Your task to perform on an android device: Go to Reddit.com Image 0: 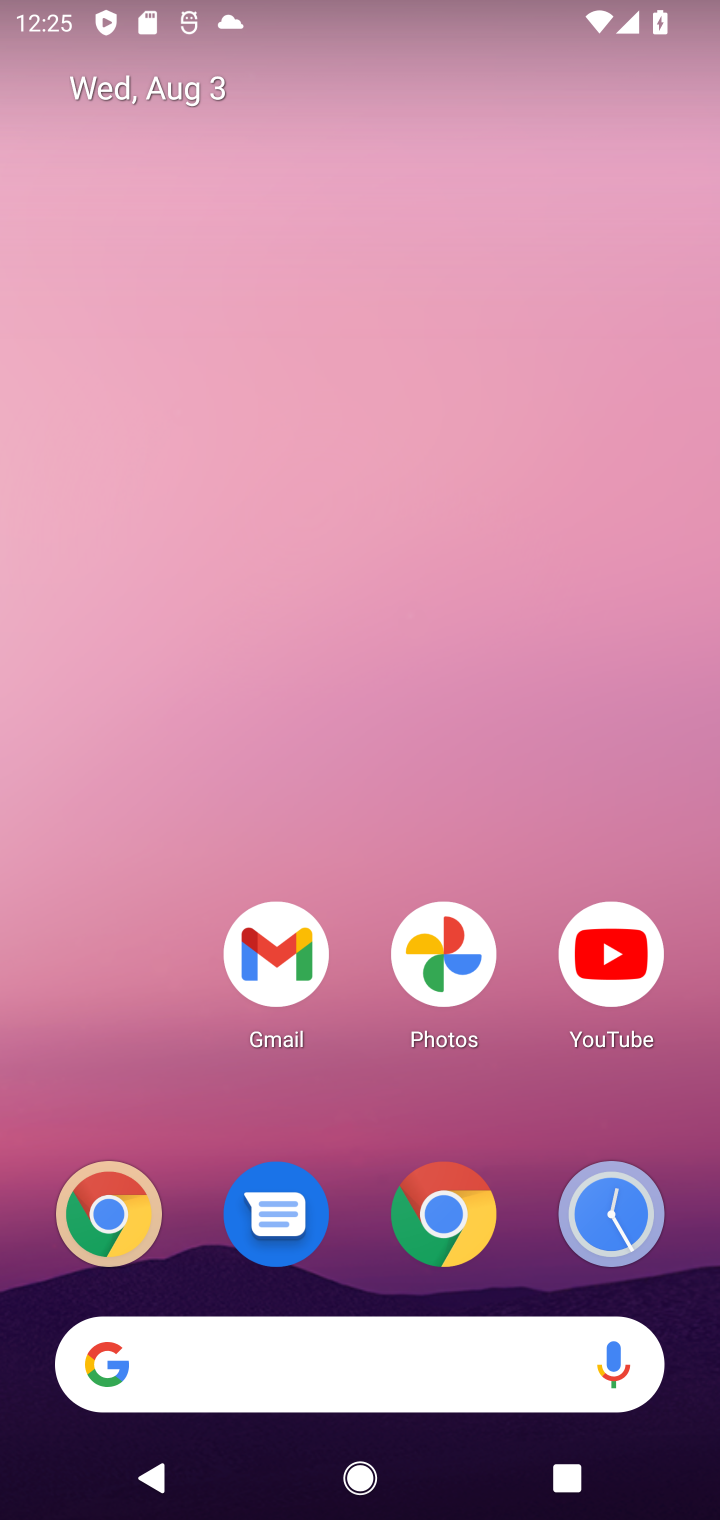
Step 0: click (606, 1222)
Your task to perform on an android device: Go to Reddit.com Image 1: 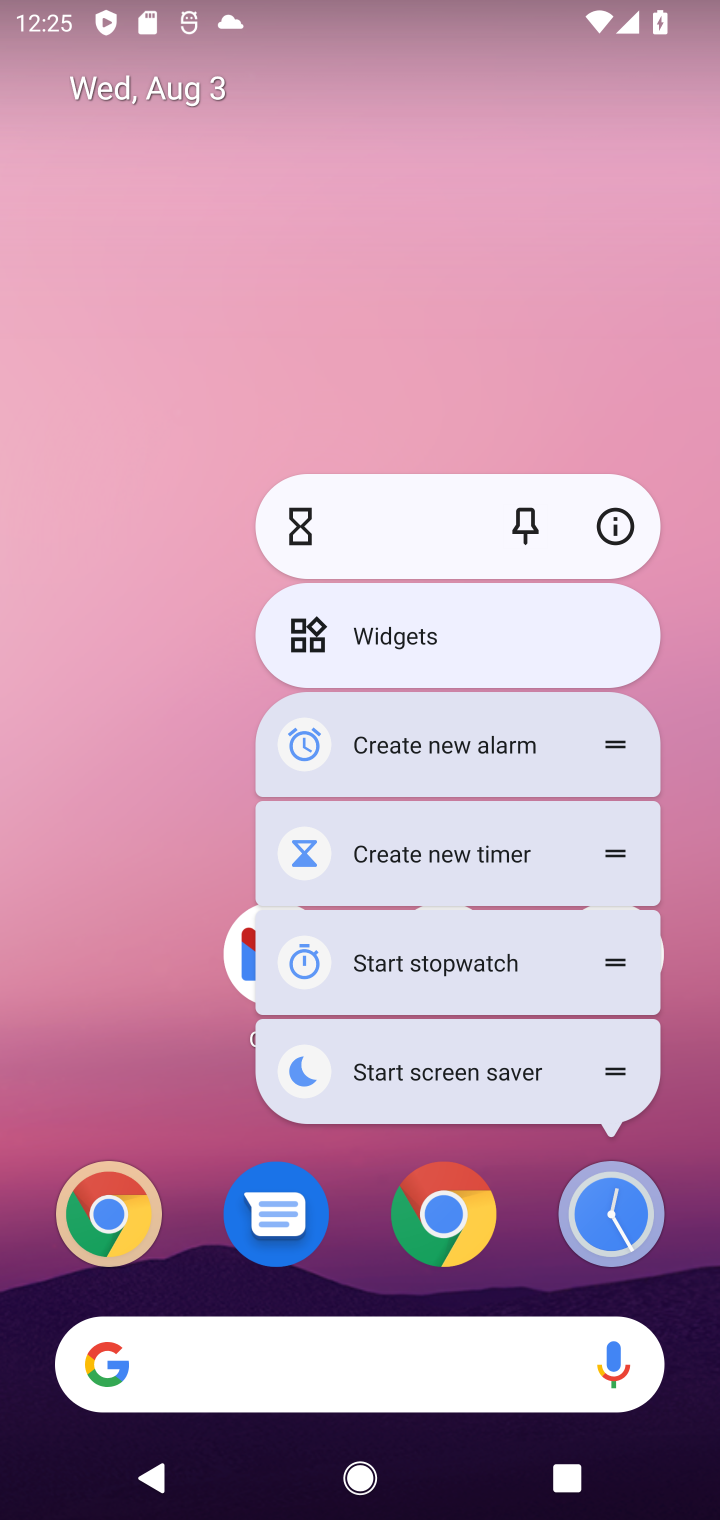
Step 1: click (606, 1222)
Your task to perform on an android device: Go to Reddit.com Image 2: 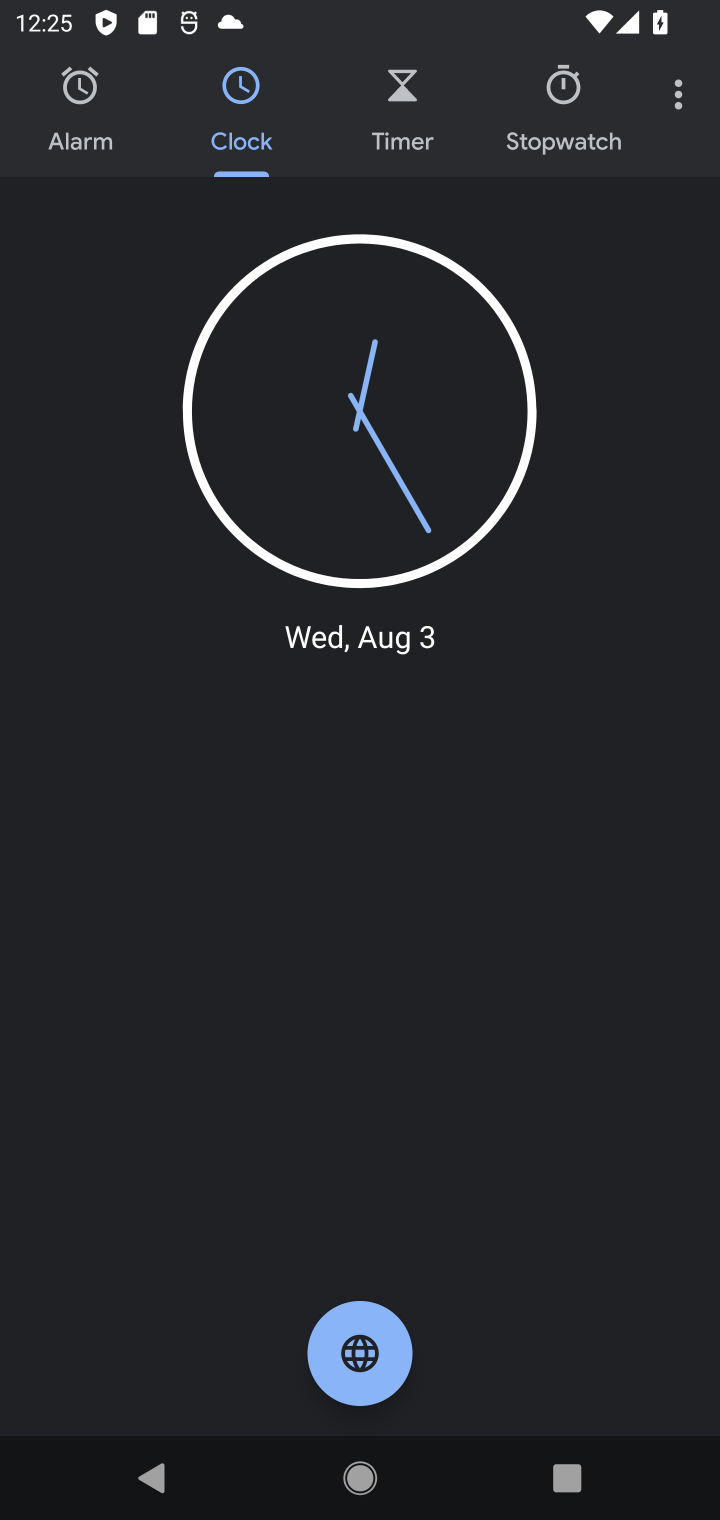
Step 2: press home button
Your task to perform on an android device: Go to Reddit.com Image 3: 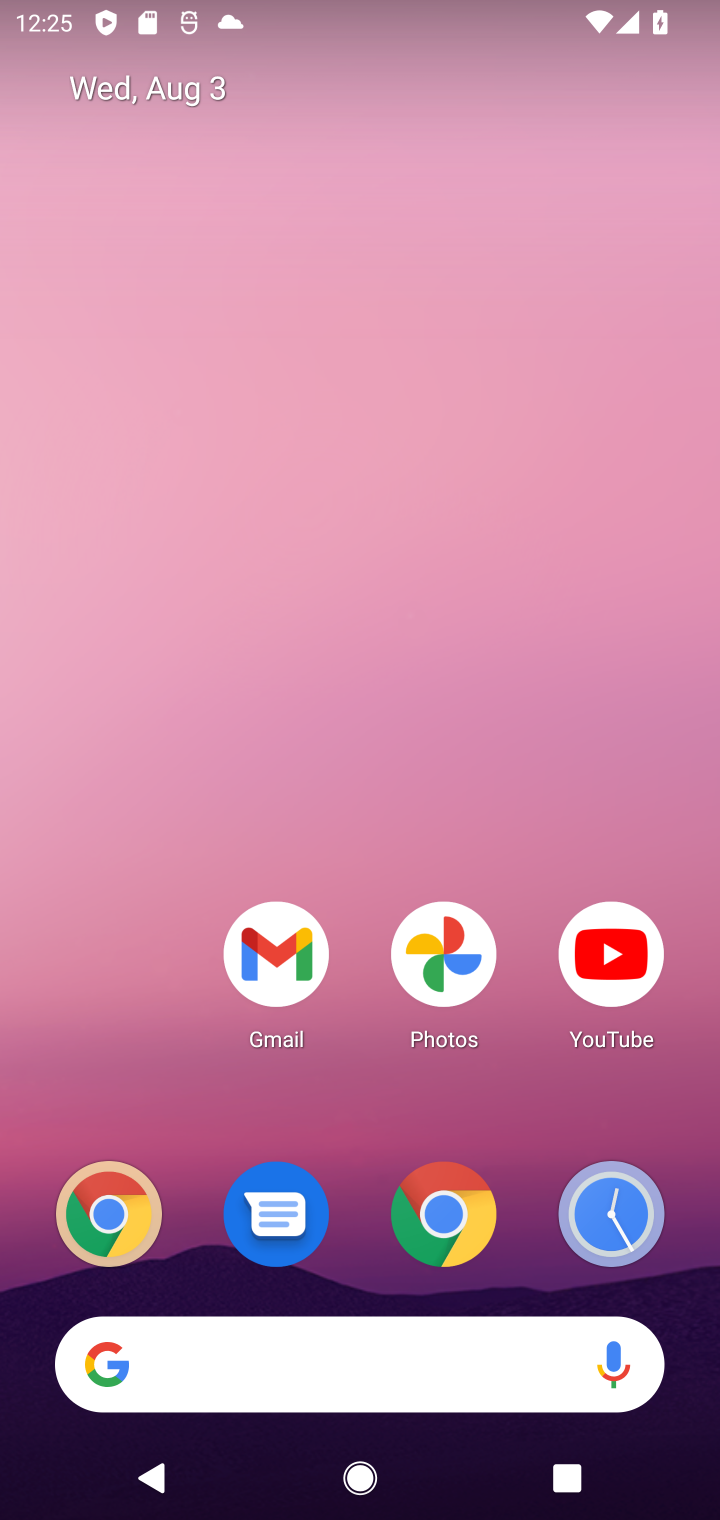
Step 3: click (173, 1349)
Your task to perform on an android device: Go to Reddit.com Image 4: 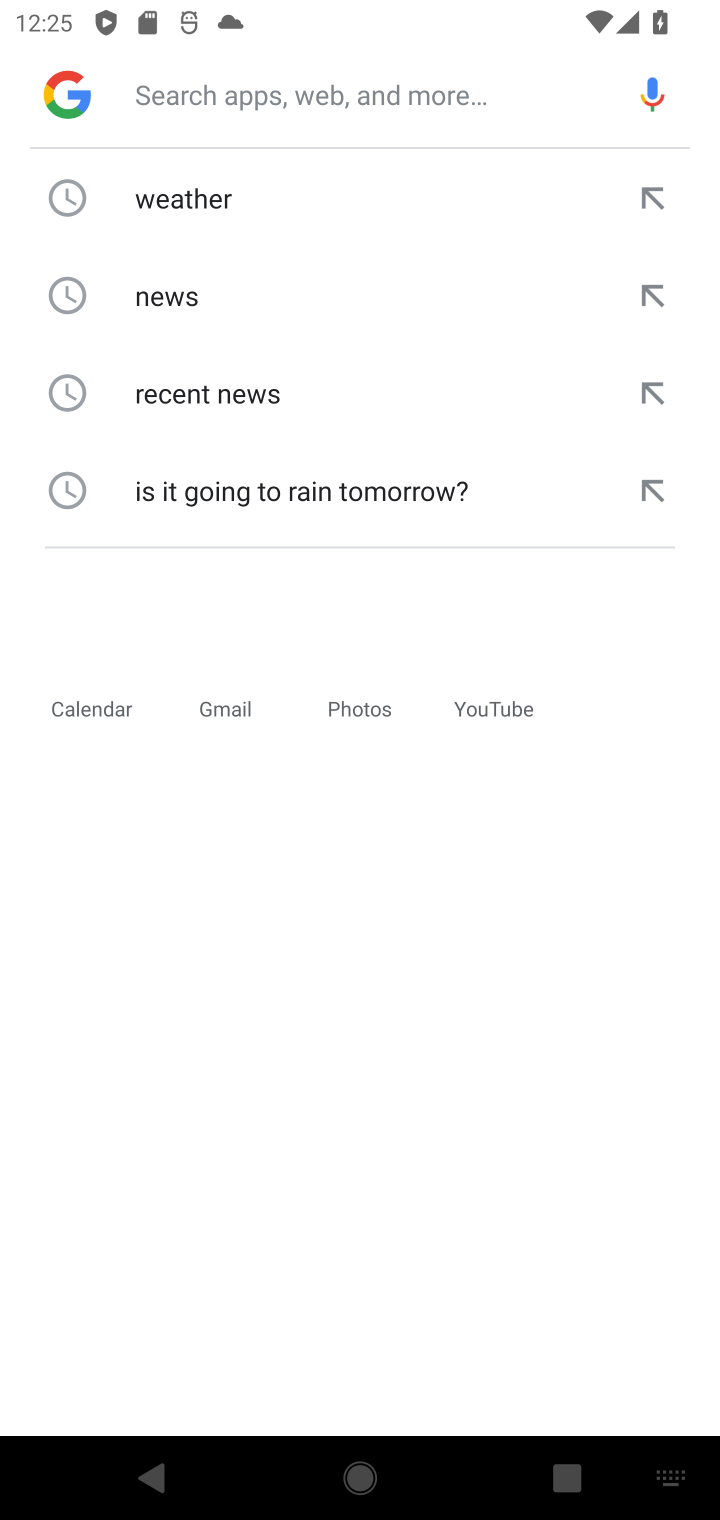
Step 4: type "reddit.com"
Your task to perform on an android device: Go to Reddit.com Image 5: 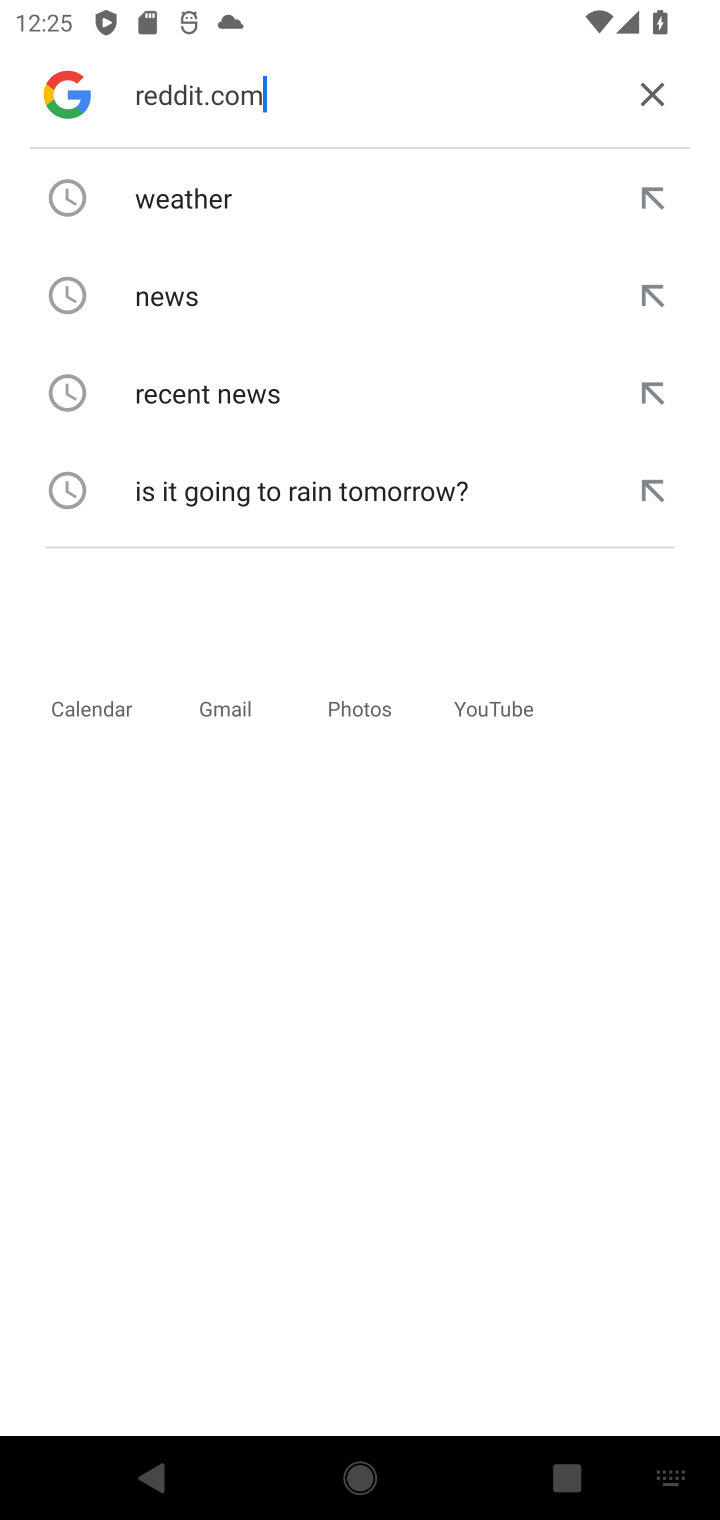
Step 5: type ""
Your task to perform on an android device: Go to Reddit.com Image 6: 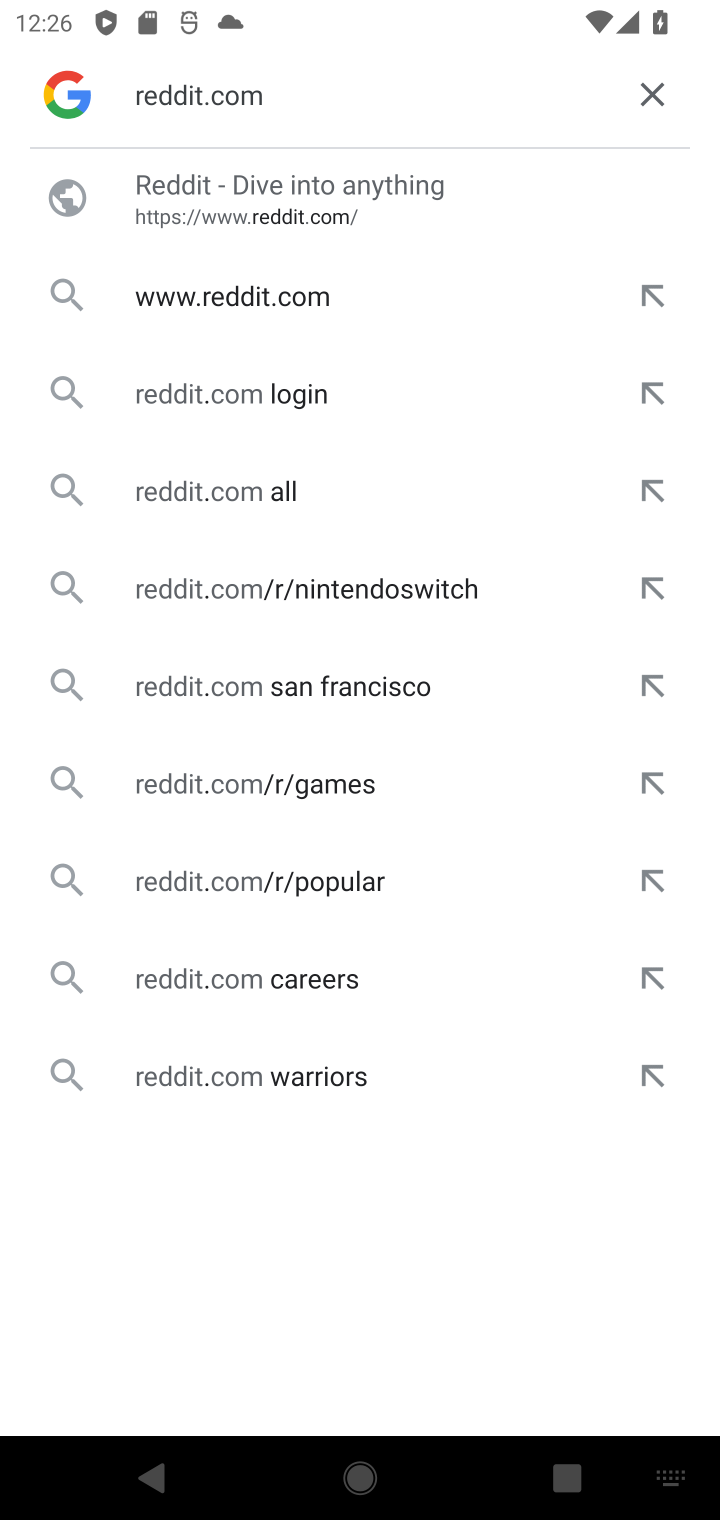
Step 6: click (491, 190)
Your task to perform on an android device: Go to Reddit.com Image 7: 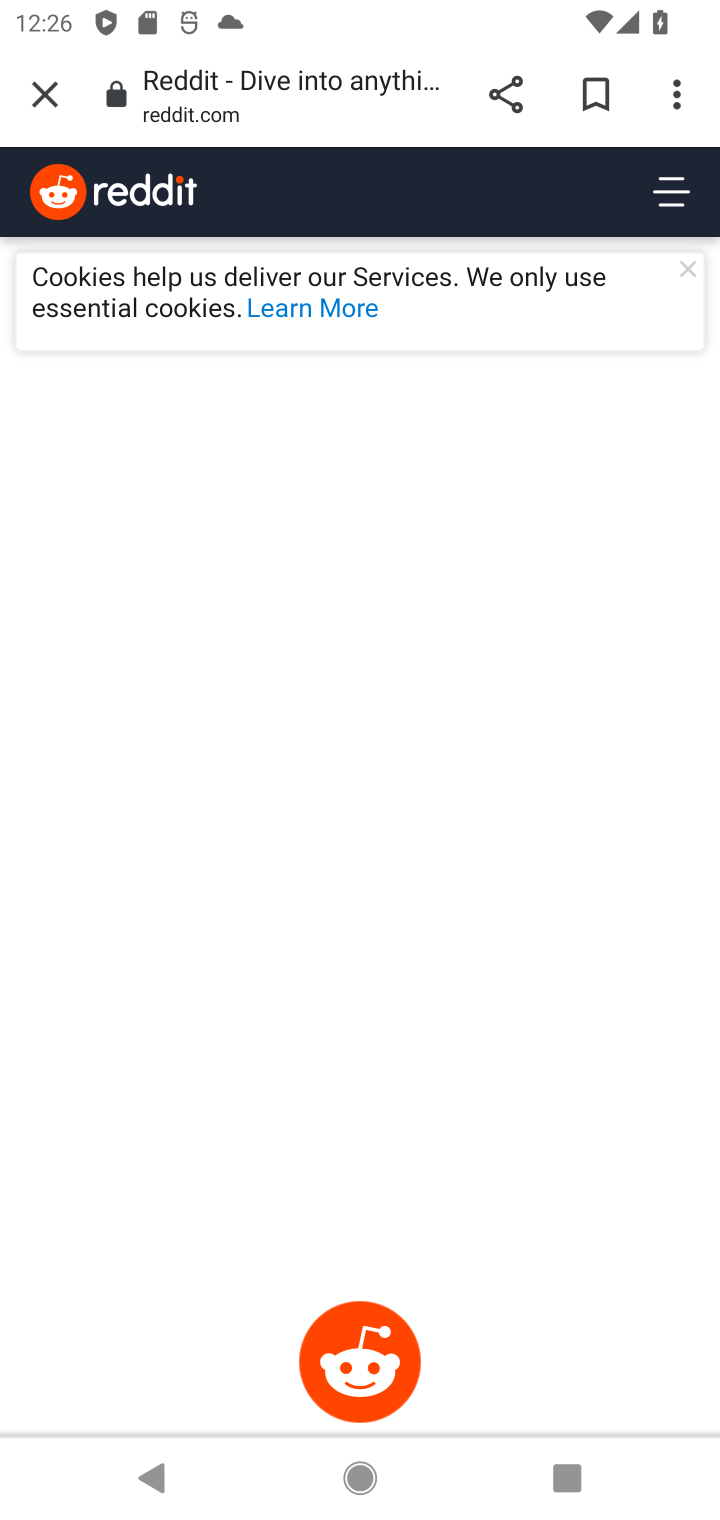
Step 7: task complete